Your task to perform on an android device: Open settings on Google Maps Image 0: 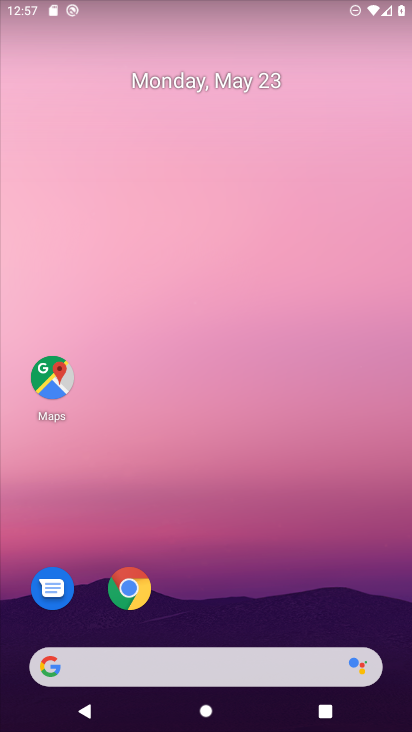
Step 0: drag from (171, 645) to (275, 218)
Your task to perform on an android device: Open settings on Google Maps Image 1: 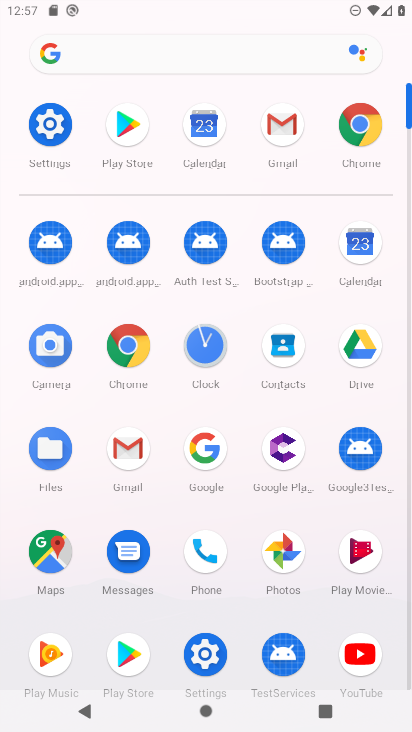
Step 1: click (43, 547)
Your task to perform on an android device: Open settings on Google Maps Image 2: 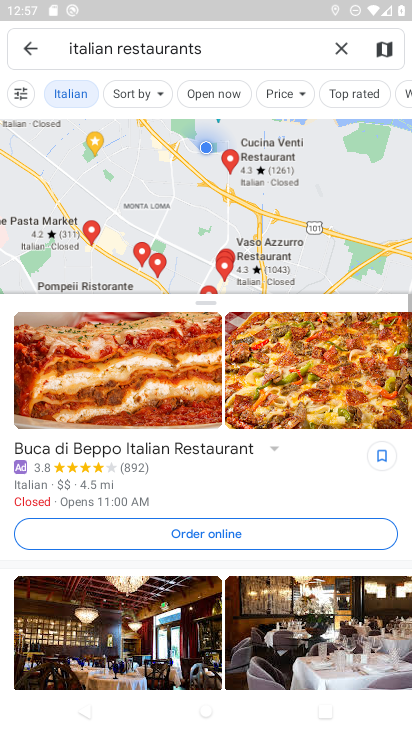
Step 2: click (339, 52)
Your task to perform on an android device: Open settings on Google Maps Image 3: 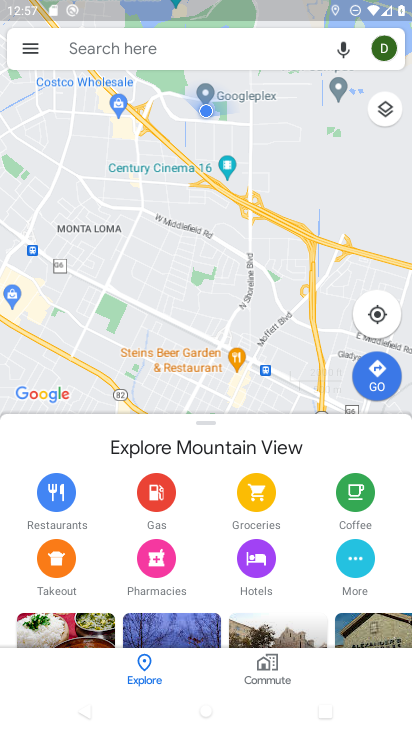
Step 3: click (28, 47)
Your task to perform on an android device: Open settings on Google Maps Image 4: 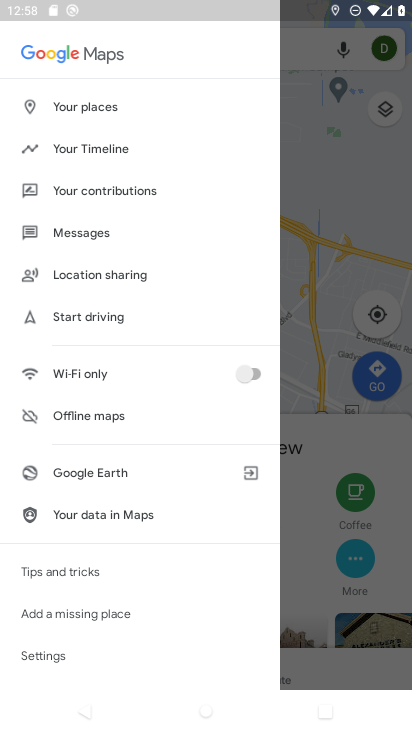
Step 4: click (63, 654)
Your task to perform on an android device: Open settings on Google Maps Image 5: 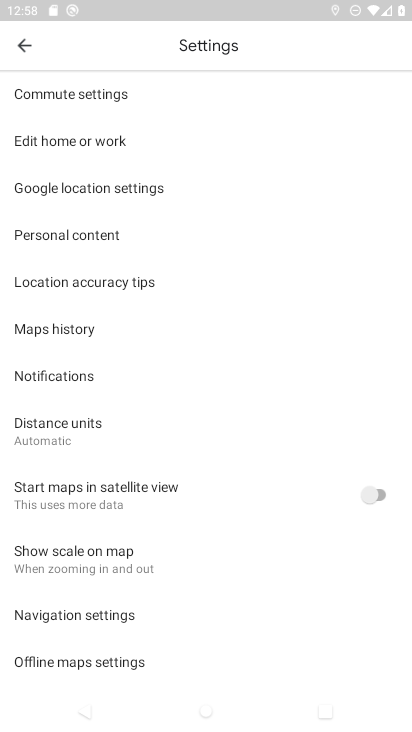
Step 5: task complete